Your task to perform on an android device: Open network settings Image 0: 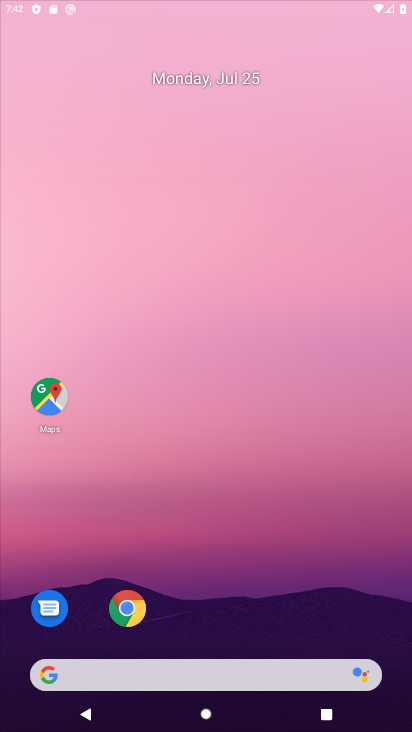
Step 0: drag from (175, 602) to (148, 10)
Your task to perform on an android device: Open network settings Image 1: 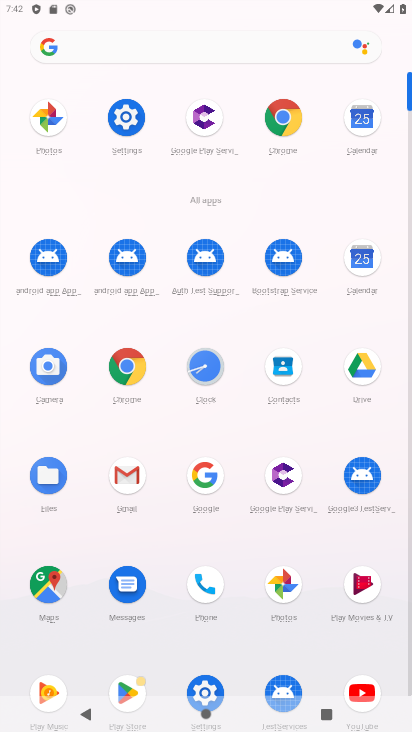
Step 1: click (191, 680)
Your task to perform on an android device: Open network settings Image 2: 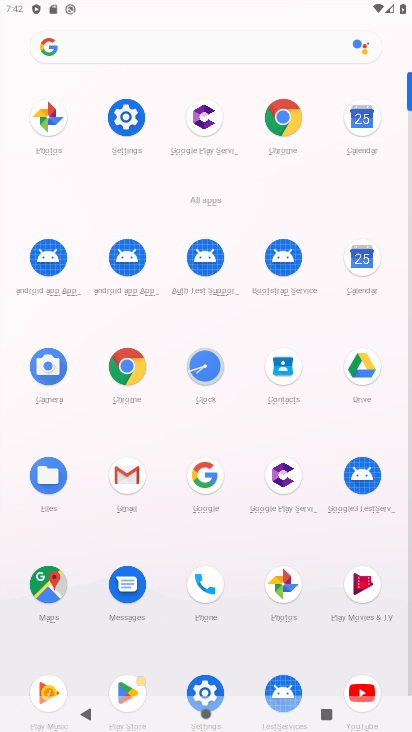
Step 2: click (191, 680)
Your task to perform on an android device: Open network settings Image 3: 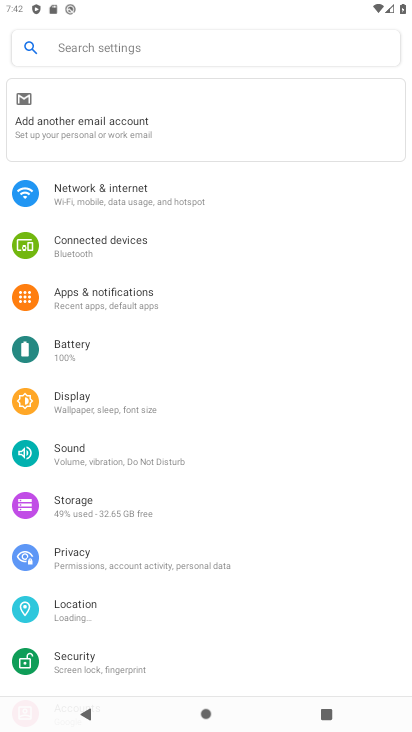
Step 3: click (107, 199)
Your task to perform on an android device: Open network settings Image 4: 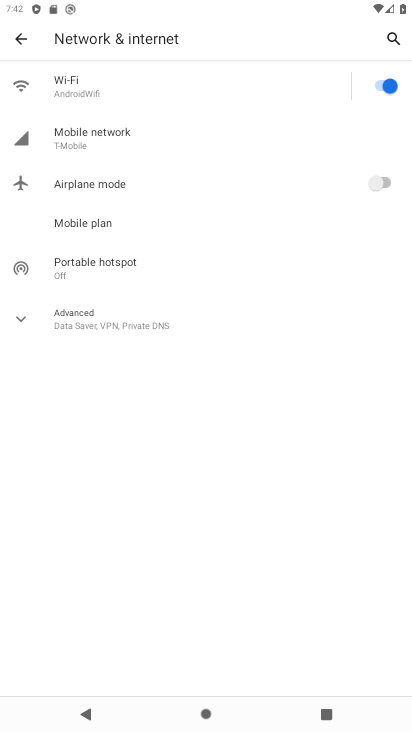
Step 4: task complete